Your task to perform on an android device: Show me the alarms in the clock app Image 0: 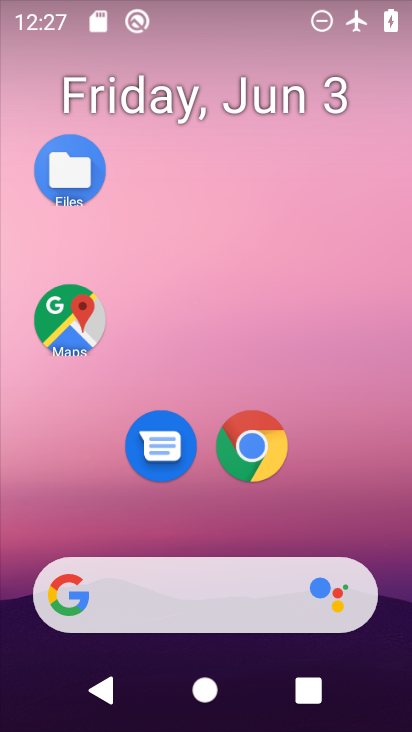
Step 0: drag from (240, 586) to (194, 140)
Your task to perform on an android device: Show me the alarms in the clock app Image 1: 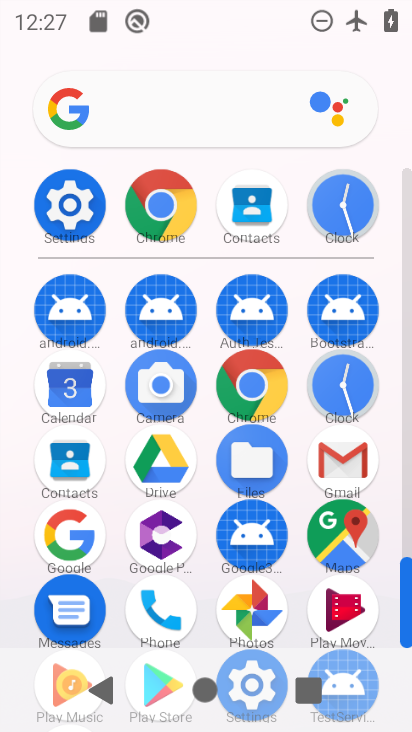
Step 1: click (342, 400)
Your task to perform on an android device: Show me the alarms in the clock app Image 2: 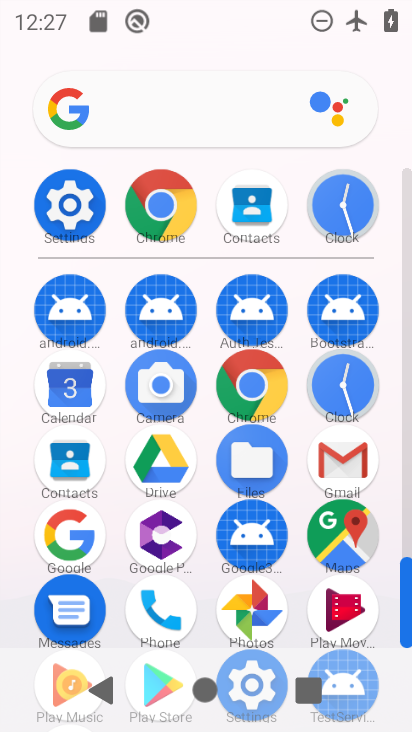
Step 2: click (337, 394)
Your task to perform on an android device: Show me the alarms in the clock app Image 3: 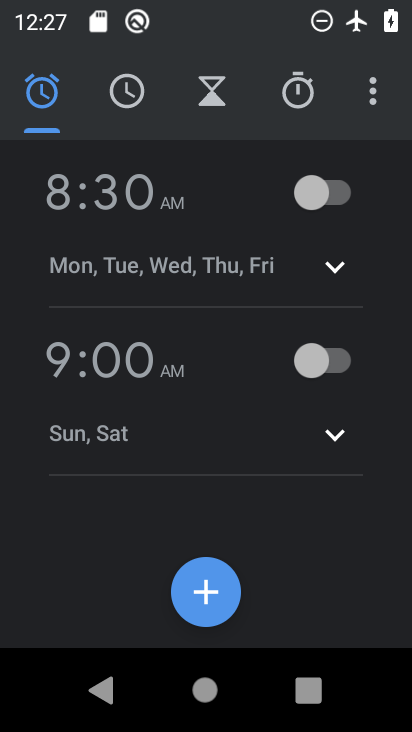
Step 3: task complete